Your task to perform on an android device: Go to Yahoo.com Image 0: 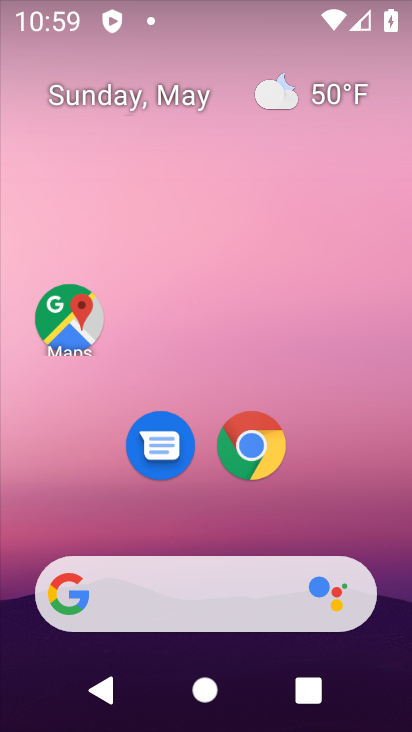
Step 0: click (209, 519)
Your task to perform on an android device: Go to Yahoo.com Image 1: 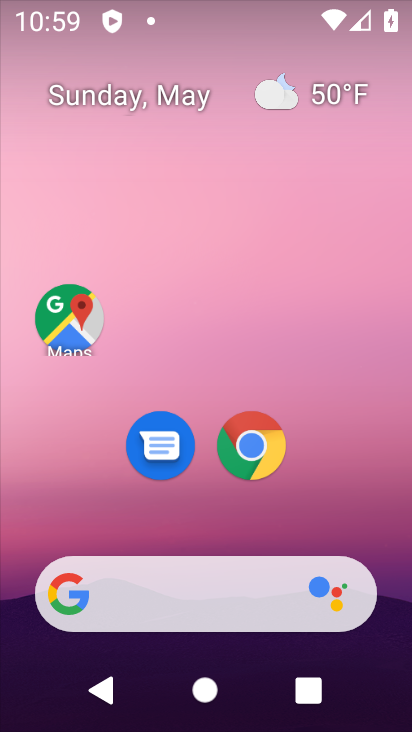
Step 1: click (255, 453)
Your task to perform on an android device: Go to Yahoo.com Image 2: 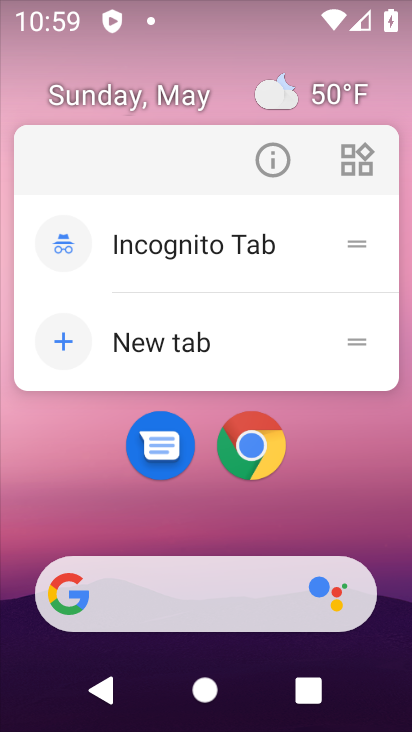
Step 2: click (241, 463)
Your task to perform on an android device: Go to Yahoo.com Image 3: 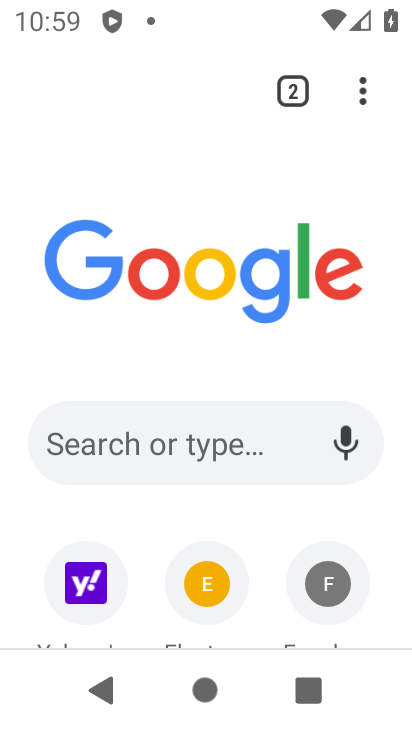
Step 3: drag from (201, 473) to (206, 212)
Your task to perform on an android device: Go to Yahoo.com Image 4: 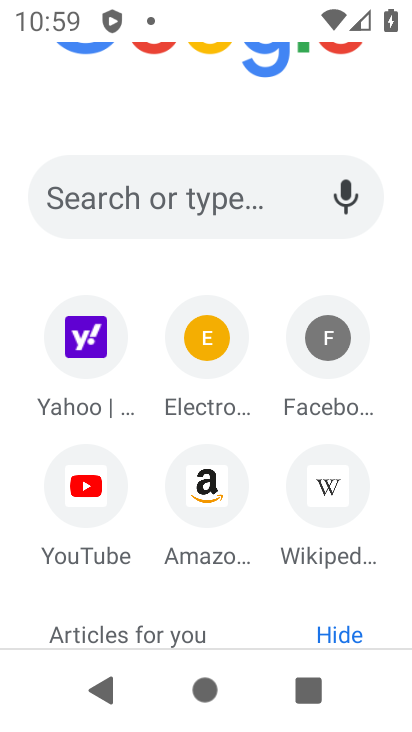
Step 4: click (81, 369)
Your task to perform on an android device: Go to Yahoo.com Image 5: 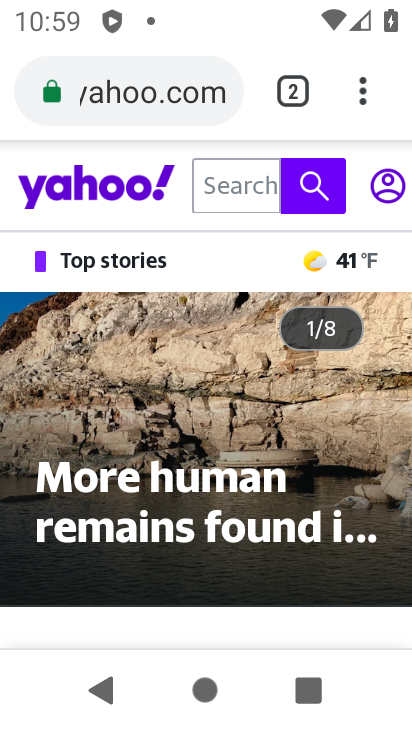
Step 5: task complete